Your task to perform on an android device: Open accessibility settings Image 0: 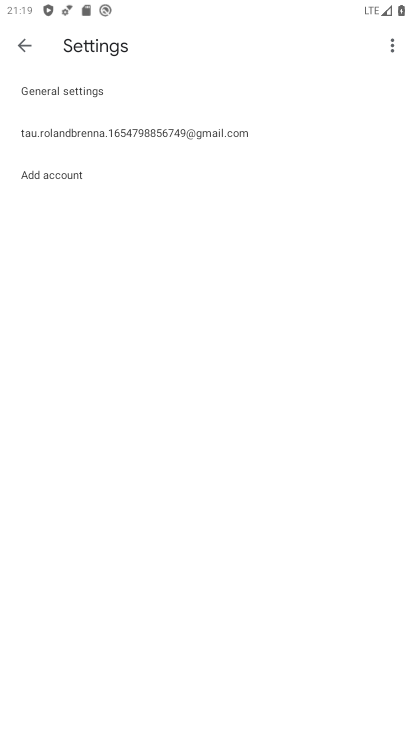
Step 0: press home button
Your task to perform on an android device: Open accessibility settings Image 1: 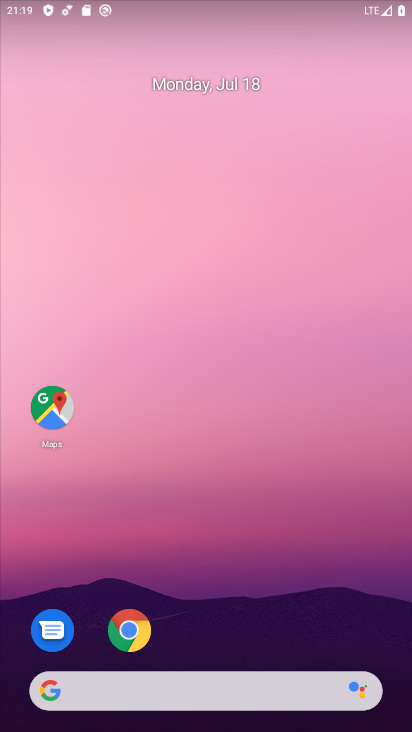
Step 1: drag from (248, 659) to (254, 285)
Your task to perform on an android device: Open accessibility settings Image 2: 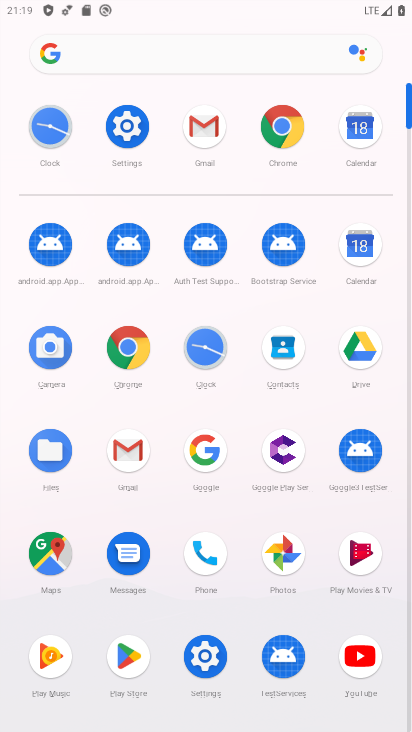
Step 2: click (135, 134)
Your task to perform on an android device: Open accessibility settings Image 3: 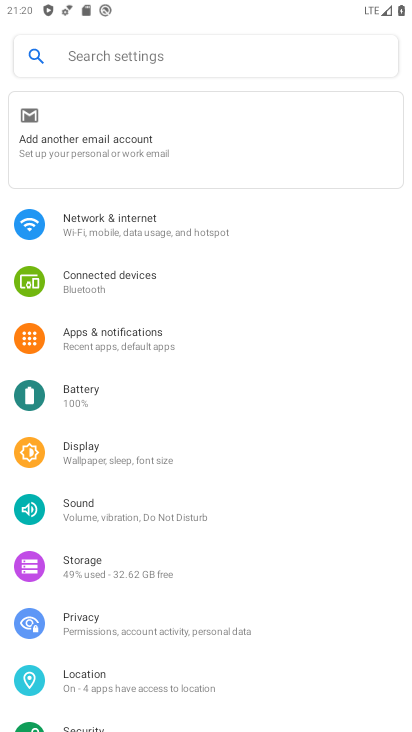
Step 3: drag from (107, 616) to (172, 345)
Your task to perform on an android device: Open accessibility settings Image 4: 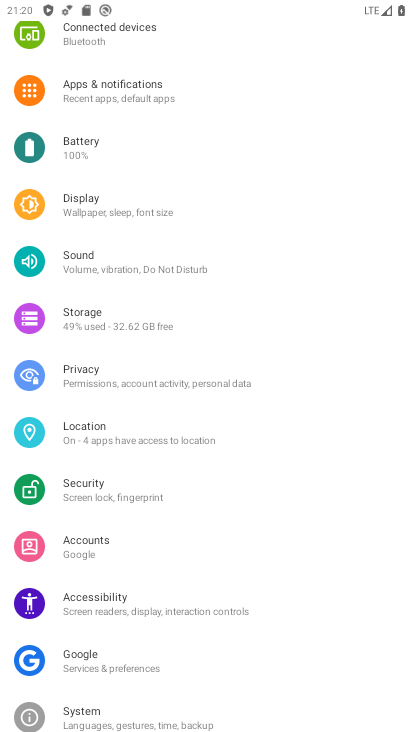
Step 4: click (122, 611)
Your task to perform on an android device: Open accessibility settings Image 5: 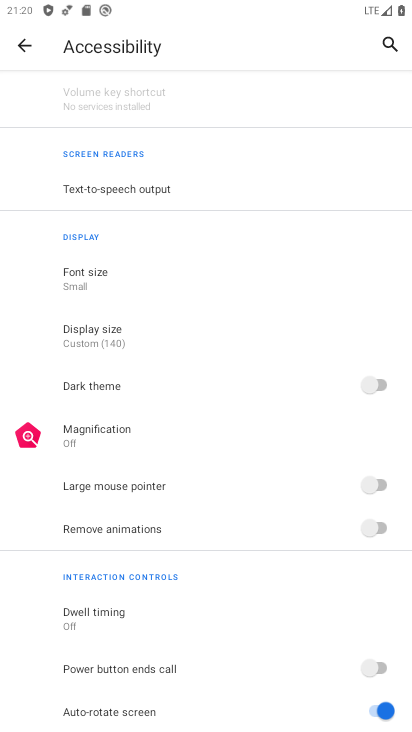
Step 5: task complete